Your task to perform on an android device: Open maps Image 0: 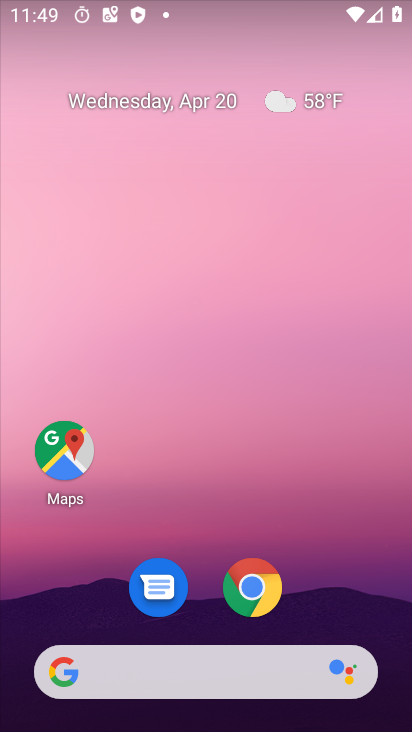
Step 0: click (74, 455)
Your task to perform on an android device: Open maps Image 1: 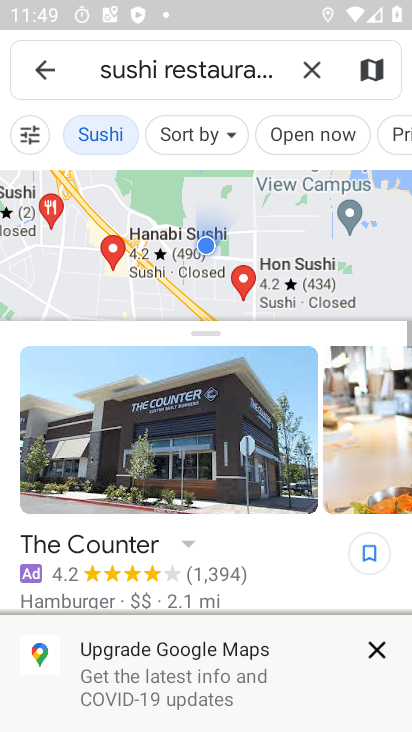
Step 1: click (42, 61)
Your task to perform on an android device: Open maps Image 2: 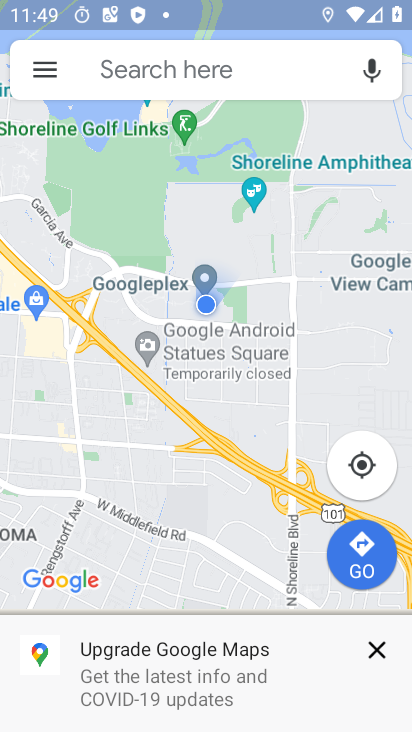
Step 2: task complete